Your task to perform on an android device: find photos in the google photos app Image 0: 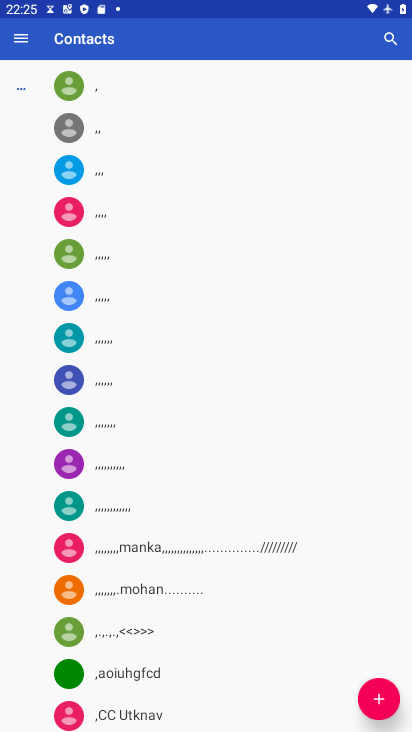
Step 0: press home button
Your task to perform on an android device: find photos in the google photos app Image 1: 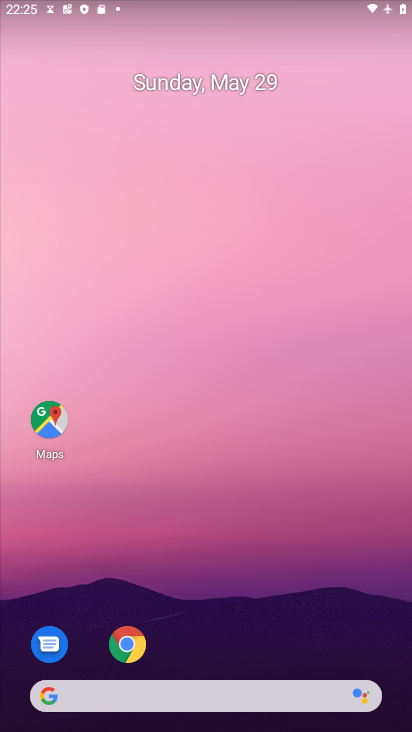
Step 1: drag from (268, 604) to (234, 326)
Your task to perform on an android device: find photos in the google photos app Image 2: 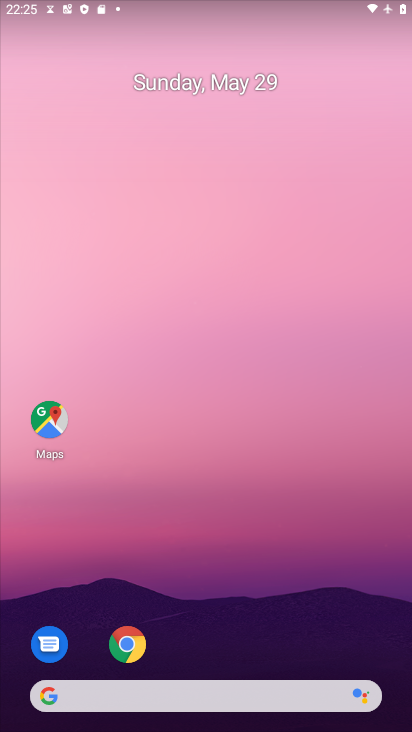
Step 2: drag from (252, 585) to (283, 199)
Your task to perform on an android device: find photos in the google photos app Image 3: 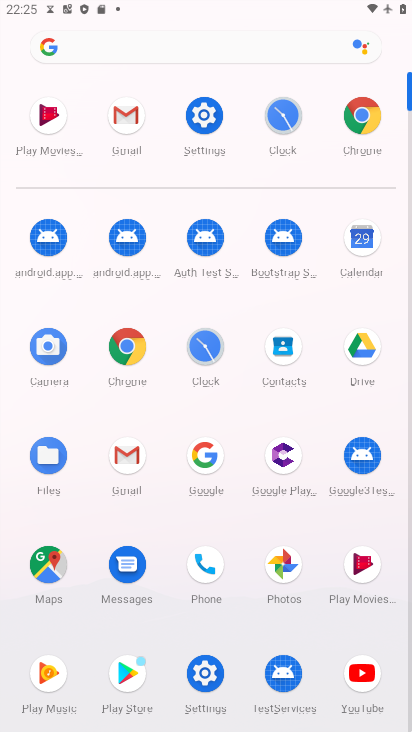
Step 3: click (281, 557)
Your task to perform on an android device: find photos in the google photos app Image 4: 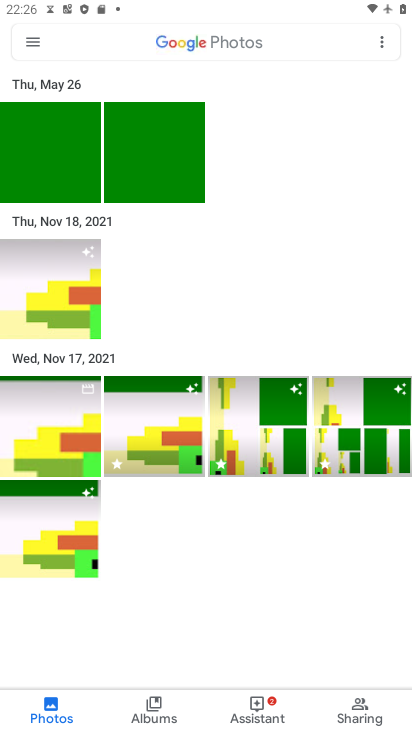
Step 4: task complete